Your task to perform on an android device: Open Chrome and go to the settings page Image 0: 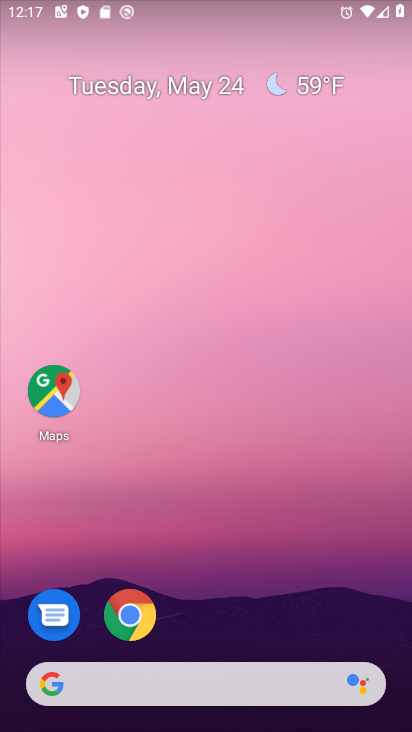
Step 0: drag from (226, 501) to (209, 55)
Your task to perform on an android device: Open Chrome and go to the settings page Image 1: 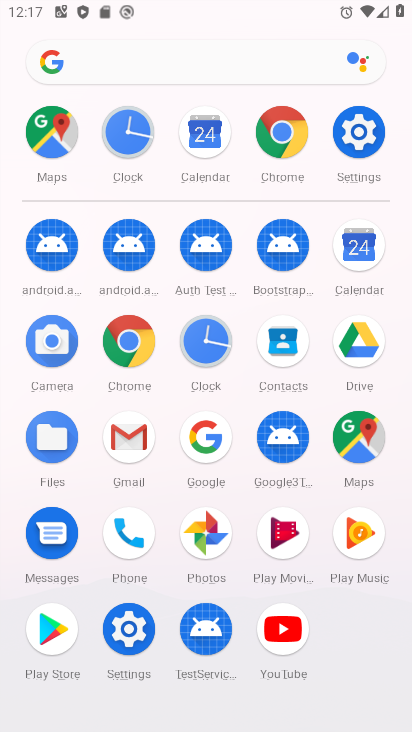
Step 1: drag from (17, 585) to (17, 172)
Your task to perform on an android device: Open Chrome and go to the settings page Image 2: 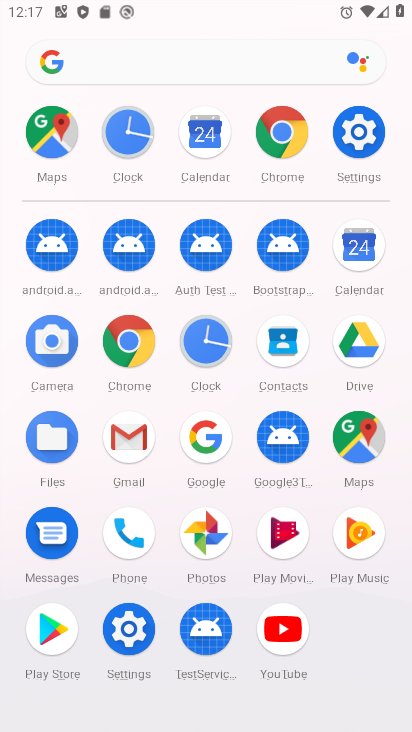
Step 2: click (130, 338)
Your task to perform on an android device: Open Chrome and go to the settings page Image 3: 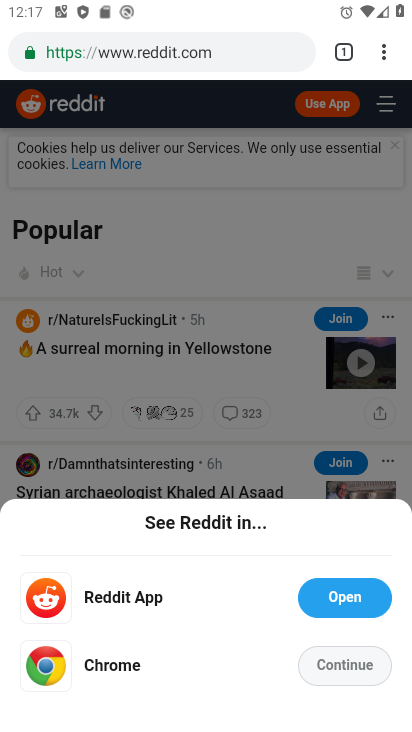
Step 3: task complete